Your task to perform on an android device: Open Google Chrome and open the bookmarks view Image 0: 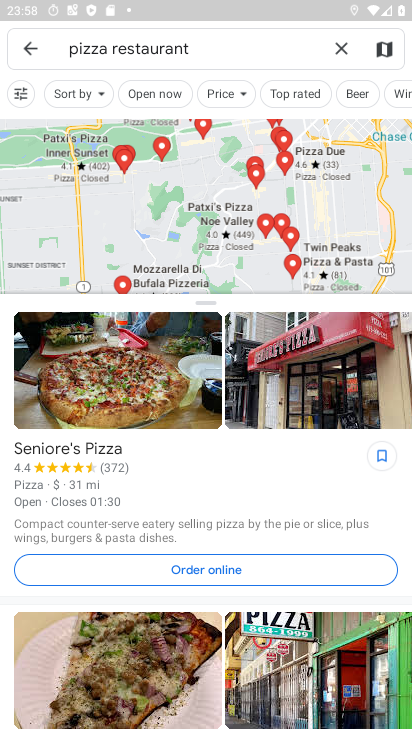
Step 0: press home button
Your task to perform on an android device: Open Google Chrome and open the bookmarks view Image 1: 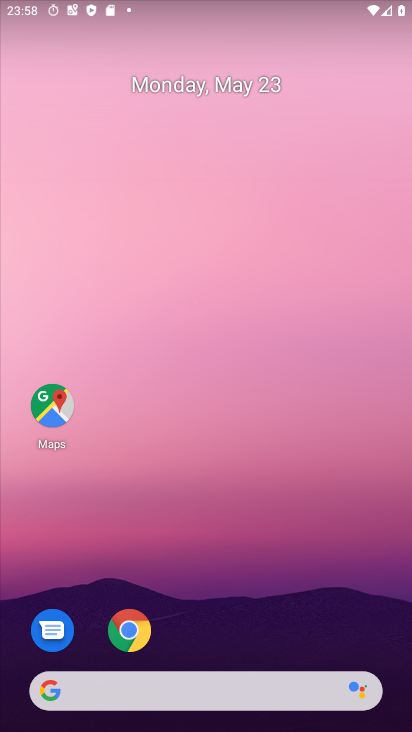
Step 1: click (139, 629)
Your task to perform on an android device: Open Google Chrome and open the bookmarks view Image 2: 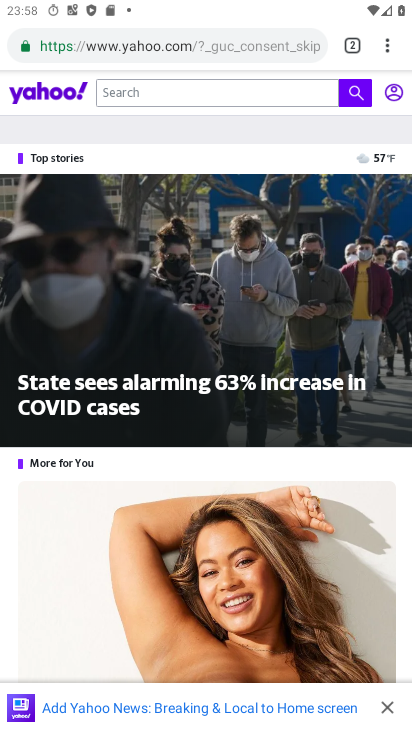
Step 2: click (388, 44)
Your task to perform on an android device: Open Google Chrome and open the bookmarks view Image 3: 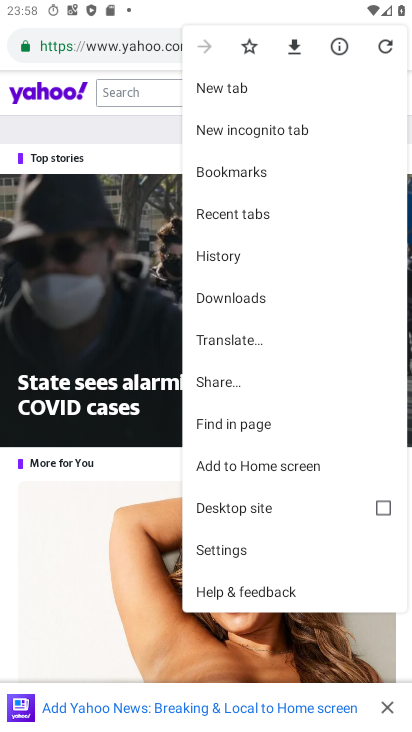
Step 3: click (213, 175)
Your task to perform on an android device: Open Google Chrome and open the bookmarks view Image 4: 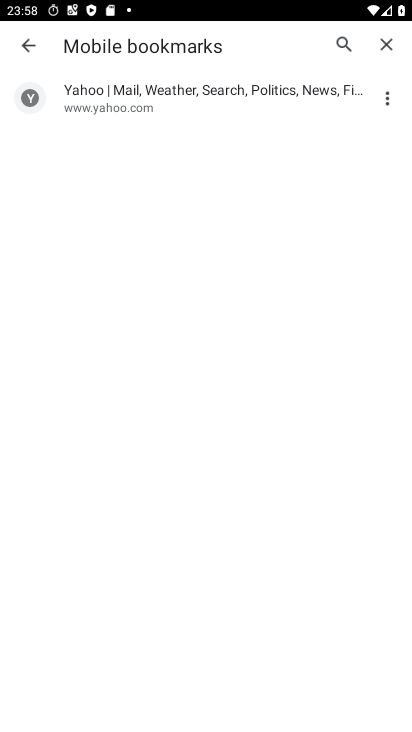
Step 4: task complete